Your task to perform on an android device: turn on sleep mode Image 0: 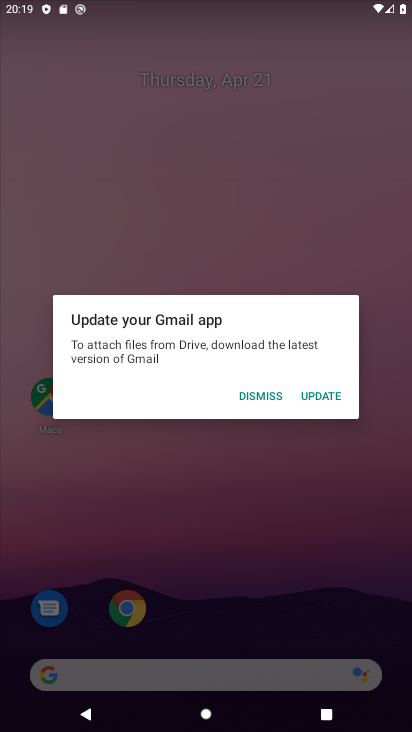
Step 0: press home button
Your task to perform on an android device: turn on sleep mode Image 1: 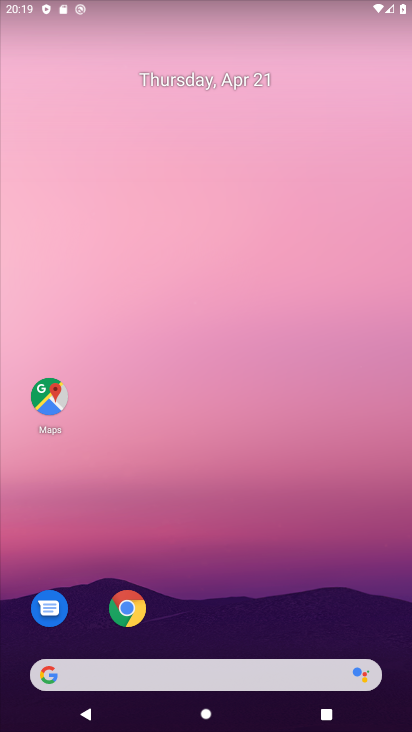
Step 1: drag from (207, 627) to (226, 49)
Your task to perform on an android device: turn on sleep mode Image 2: 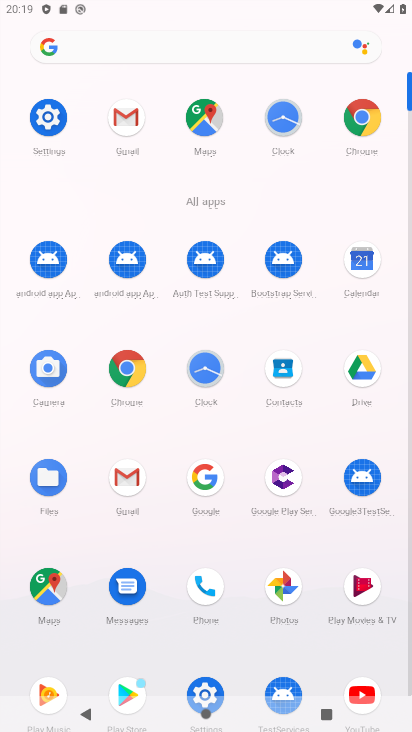
Step 2: click (52, 124)
Your task to perform on an android device: turn on sleep mode Image 3: 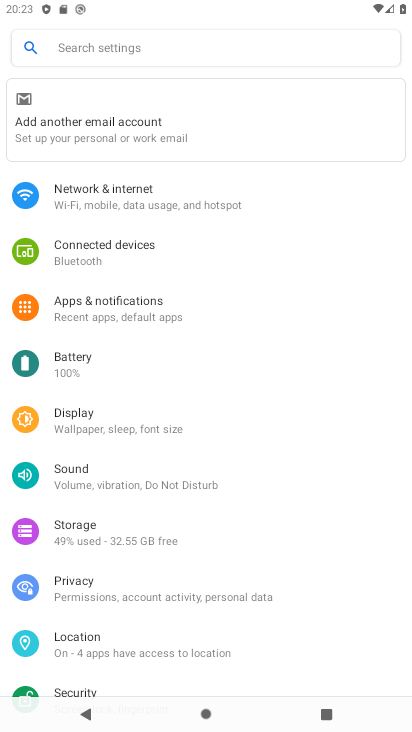
Step 3: task complete